Your task to perform on an android device: see sites visited before in the chrome app Image 0: 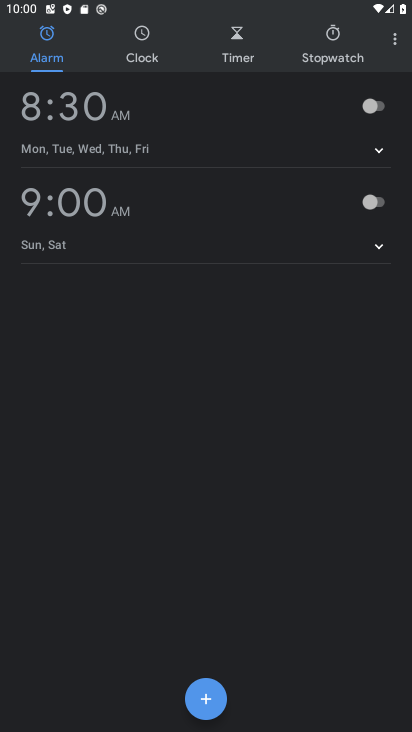
Step 0: press home button
Your task to perform on an android device: see sites visited before in the chrome app Image 1: 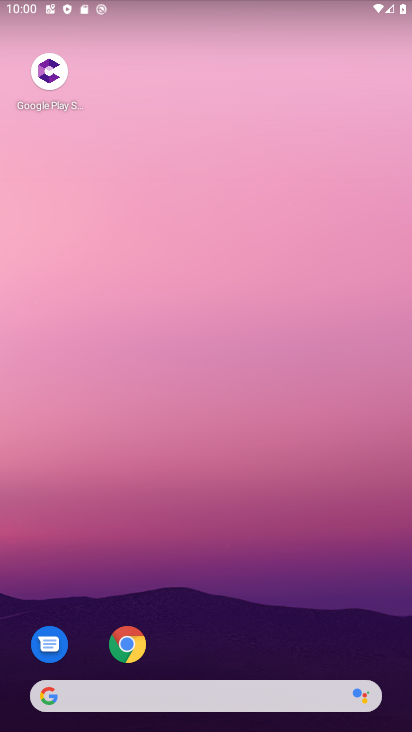
Step 1: click (134, 655)
Your task to perform on an android device: see sites visited before in the chrome app Image 2: 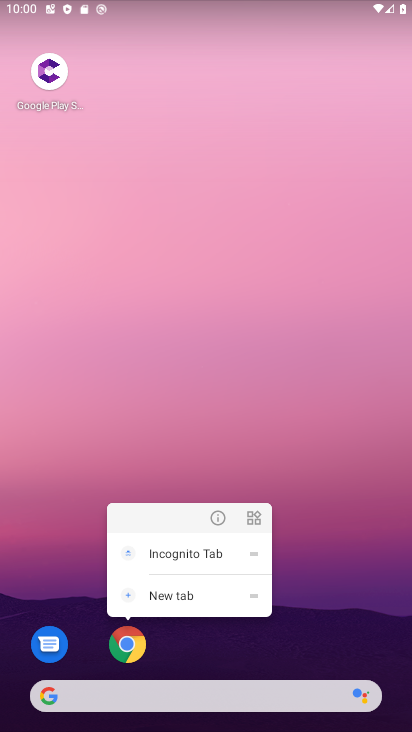
Step 2: click (124, 654)
Your task to perform on an android device: see sites visited before in the chrome app Image 3: 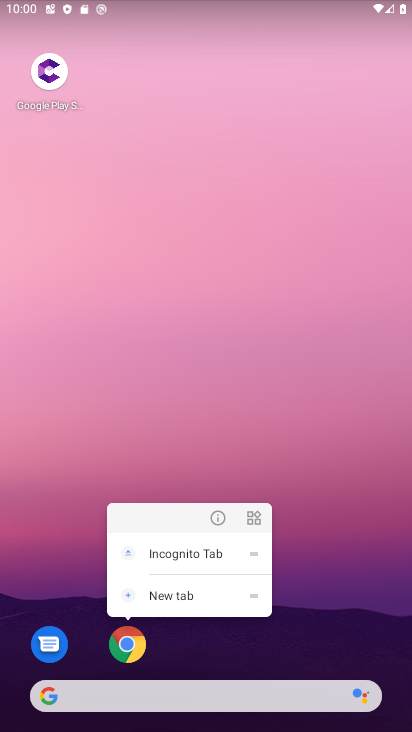
Step 3: click (124, 654)
Your task to perform on an android device: see sites visited before in the chrome app Image 4: 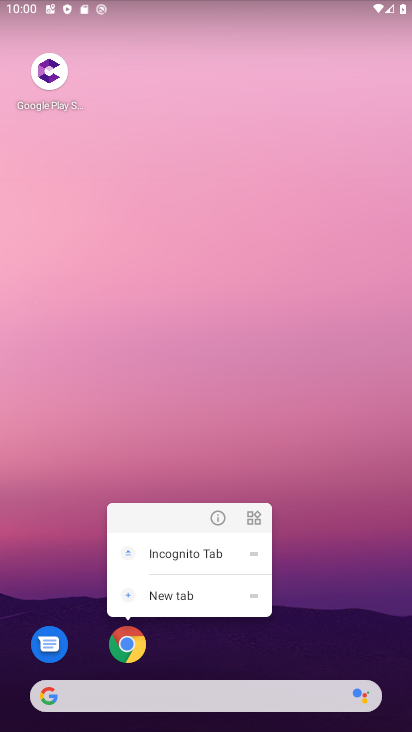
Step 4: click (116, 656)
Your task to perform on an android device: see sites visited before in the chrome app Image 5: 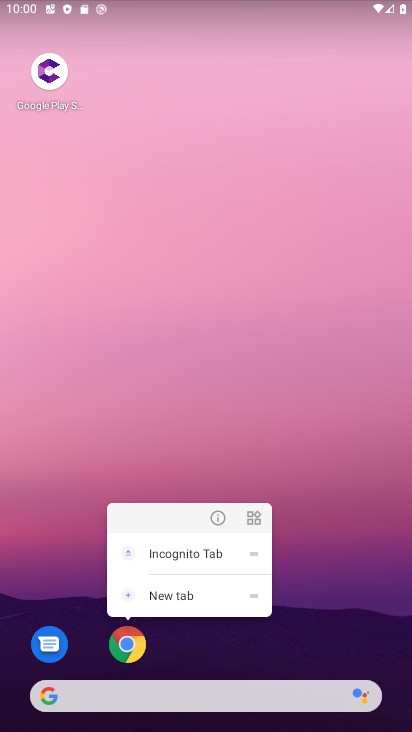
Step 5: click (116, 656)
Your task to perform on an android device: see sites visited before in the chrome app Image 6: 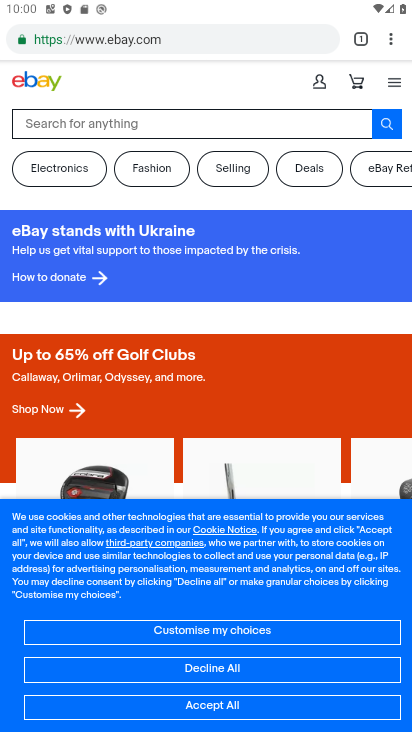
Step 6: drag from (393, 40) to (309, 187)
Your task to perform on an android device: see sites visited before in the chrome app Image 7: 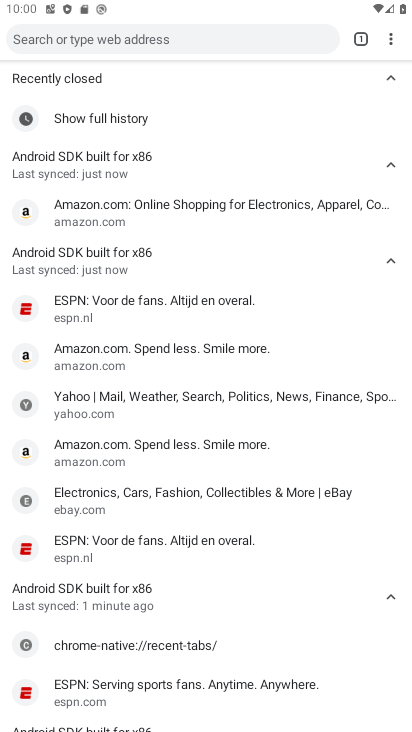
Step 7: click (249, 218)
Your task to perform on an android device: see sites visited before in the chrome app Image 8: 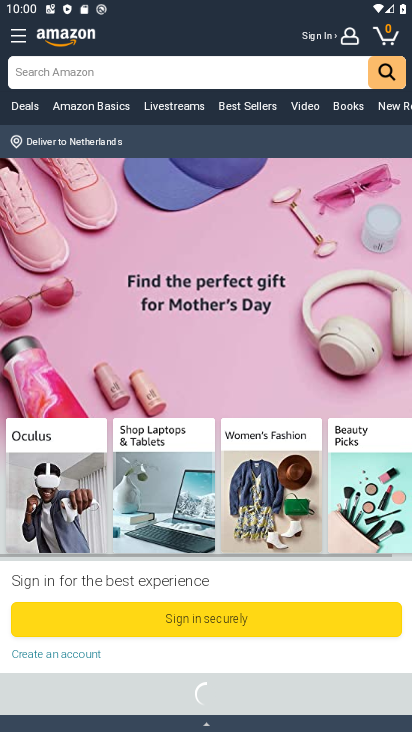
Step 8: task complete